Your task to perform on an android device: make emails show in primary in the gmail app Image 0: 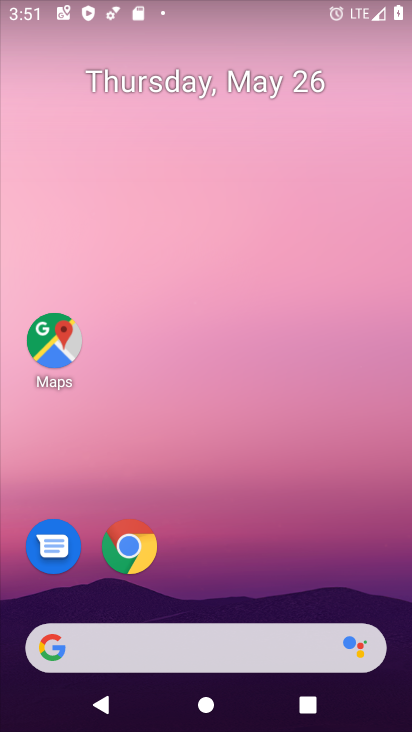
Step 0: drag from (271, 577) to (336, 67)
Your task to perform on an android device: make emails show in primary in the gmail app Image 1: 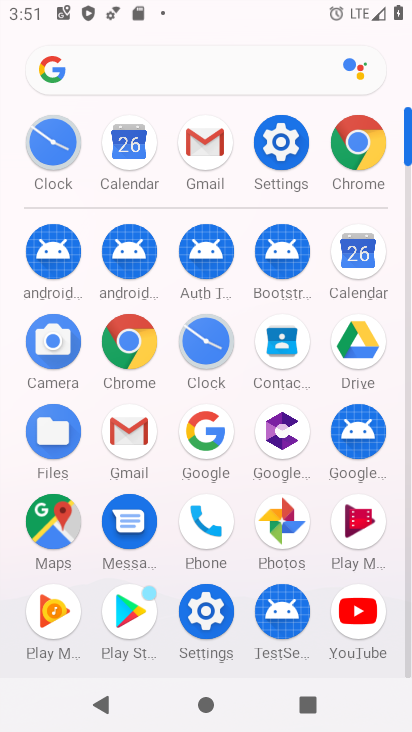
Step 1: click (207, 150)
Your task to perform on an android device: make emails show in primary in the gmail app Image 2: 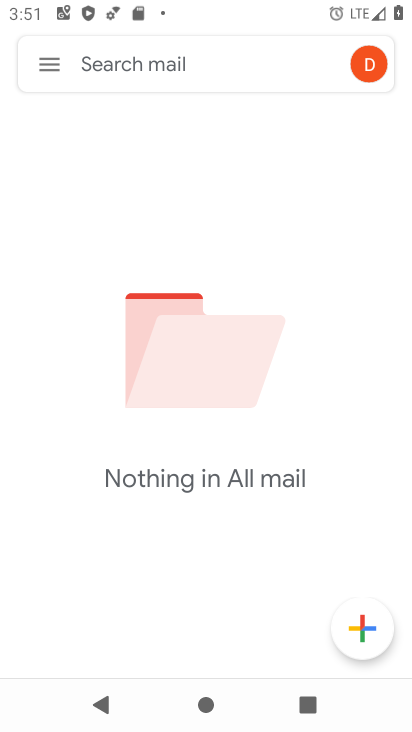
Step 2: click (49, 58)
Your task to perform on an android device: make emails show in primary in the gmail app Image 3: 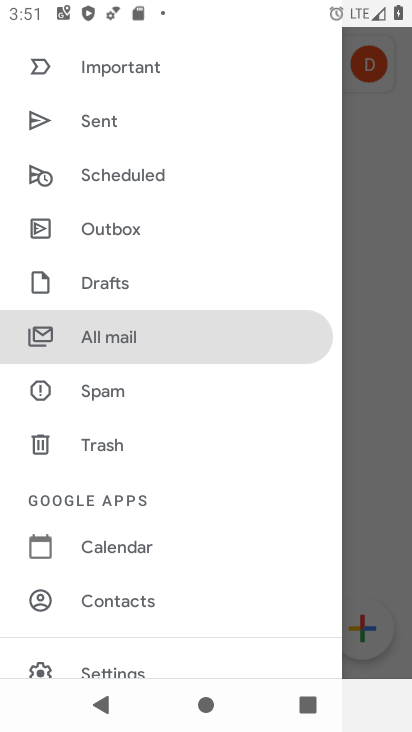
Step 3: drag from (107, 603) to (186, 190)
Your task to perform on an android device: make emails show in primary in the gmail app Image 4: 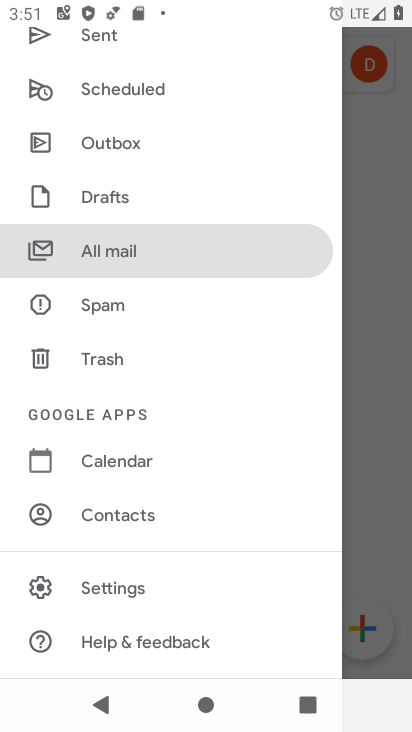
Step 4: click (111, 591)
Your task to perform on an android device: make emails show in primary in the gmail app Image 5: 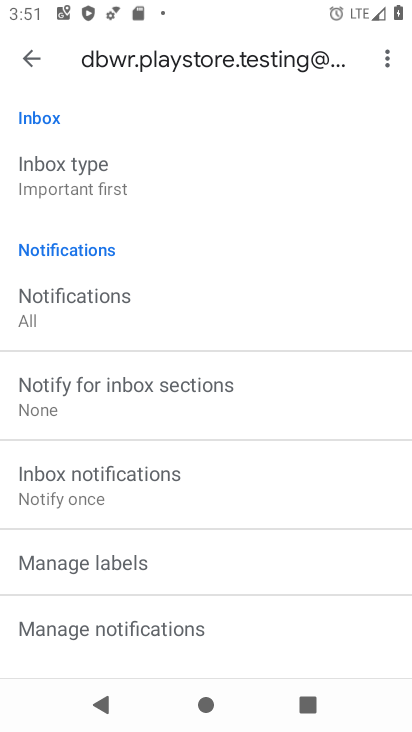
Step 5: task complete